Your task to perform on an android device: open a new tab in the chrome app Image 0: 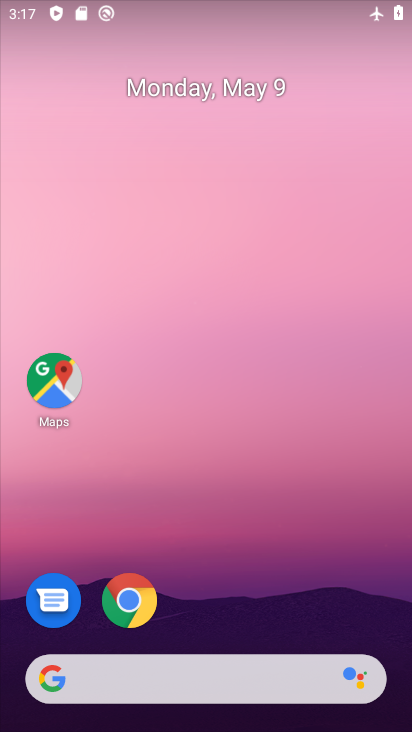
Step 0: click (139, 602)
Your task to perform on an android device: open a new tab in the chrome app Image 1: 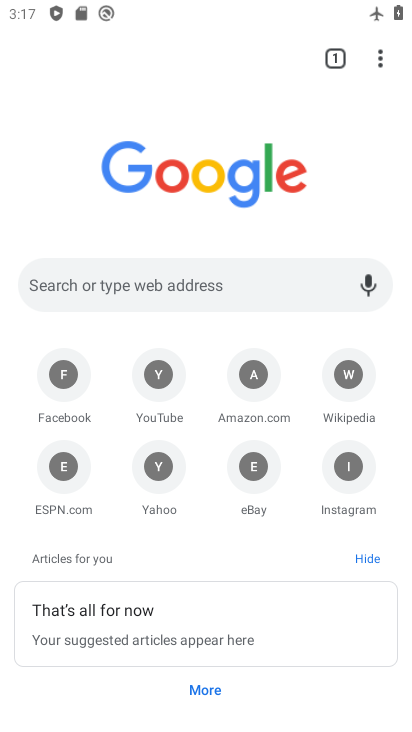
Step 1: click (378, 62)
Your task to perform on an android device: open a new tab in the chrome app Image 2: 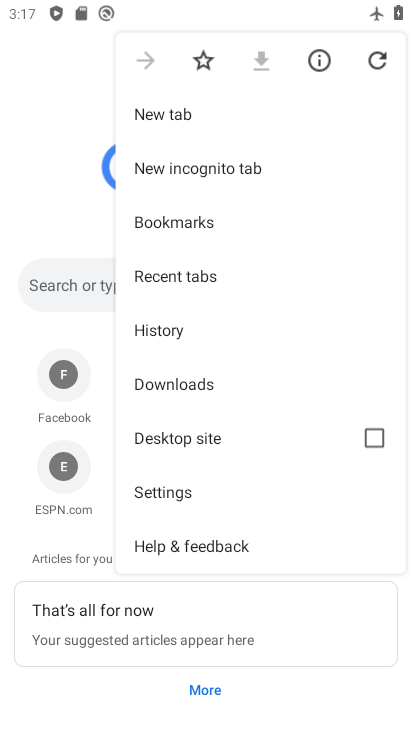
Step 2: click (190, 118)
Your task to perform on an android device: open a new tab in the chrome app Image 3: 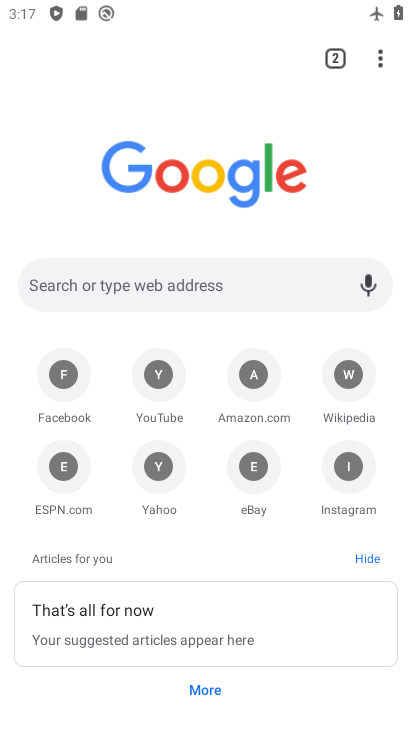
Step 3: task complete